Your task to perform on an android device: turn off wifi Image 0: 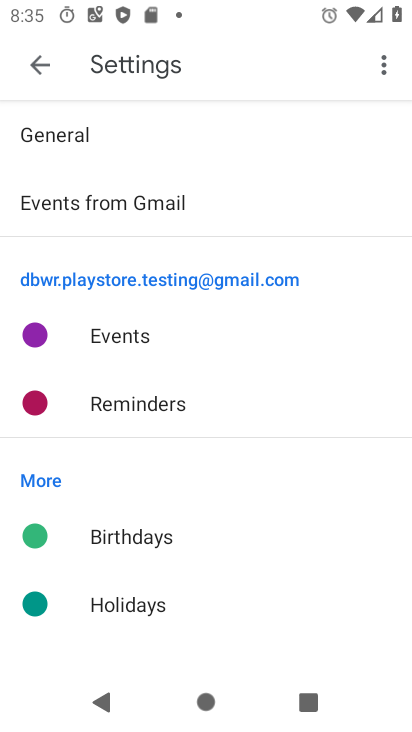
Step 0: press home button
Your task to perform on an android device: turn off wifi Image 1: 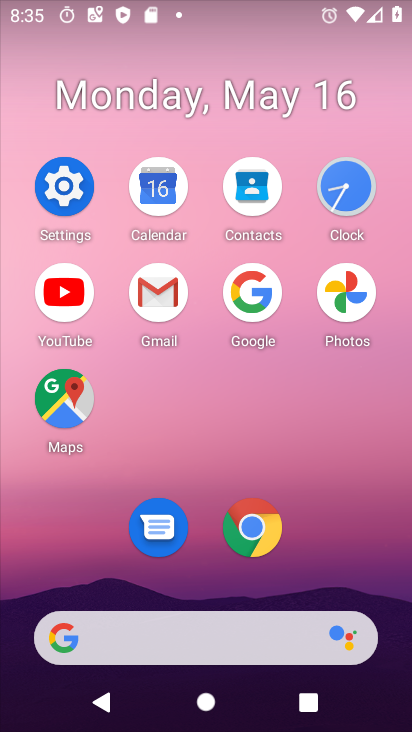
Step 1: click (87, 202)
Your task to perform on an android device: turn off wifi Image 2: 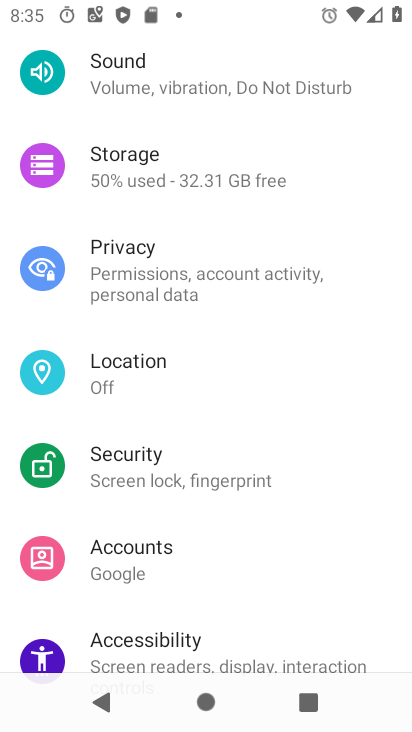
Step 2: drag from (306, 226) to (261, 628)
Your task to perform on an android device: turn off wifi Image 3: 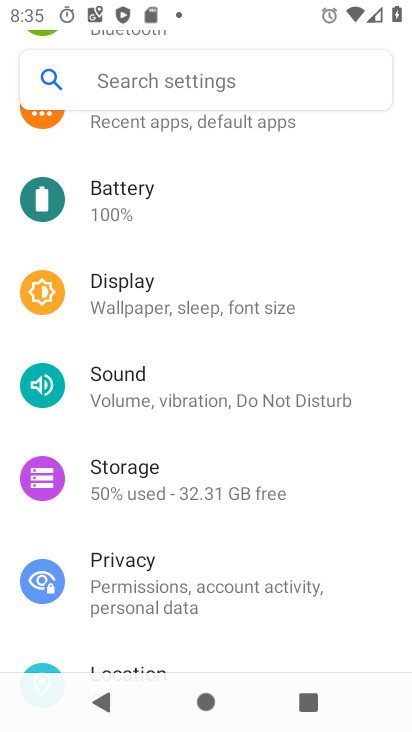
Step 3: drag from (300, 211) to (300, 626)
Your task to perform on an android device: turn off wifi Image 4: 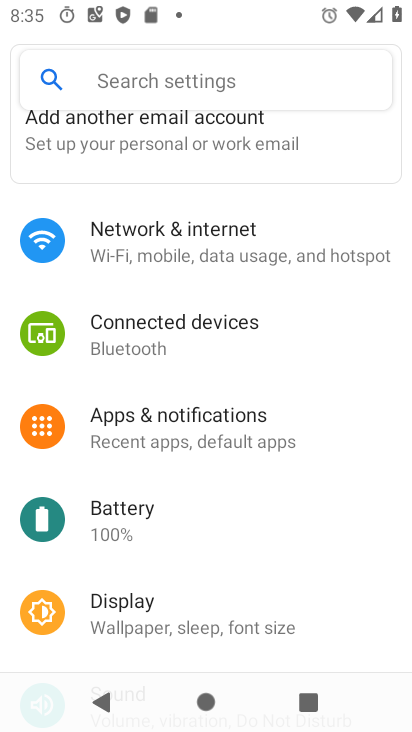
Step 4: click (264, 231)
Your task to perform on an android device: turn off wifi Image 5: 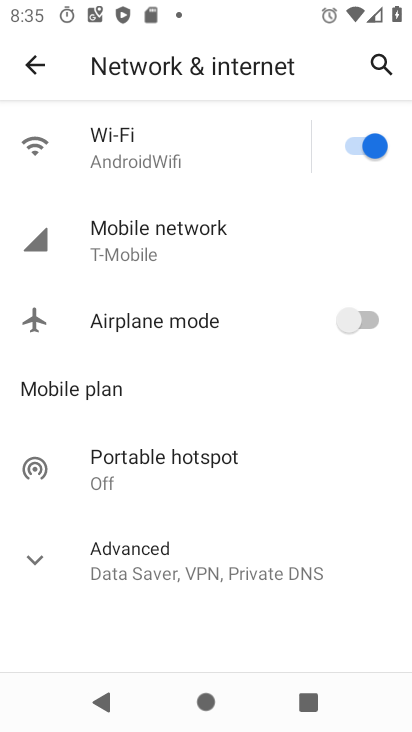
Step 5: click (377, 144)
Your task to perform on an android device: turn off wifi Image 6: 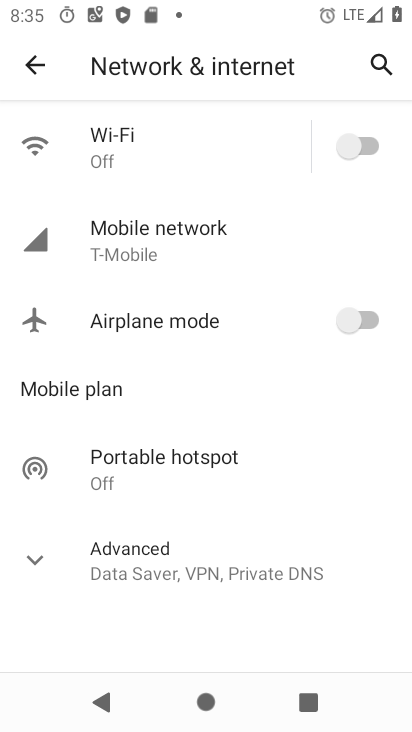
Step 6: task complete